Your task to perform on an android device: Add "usb-c to usb-a" to the cart on amazon, then select checkout. Image 0: 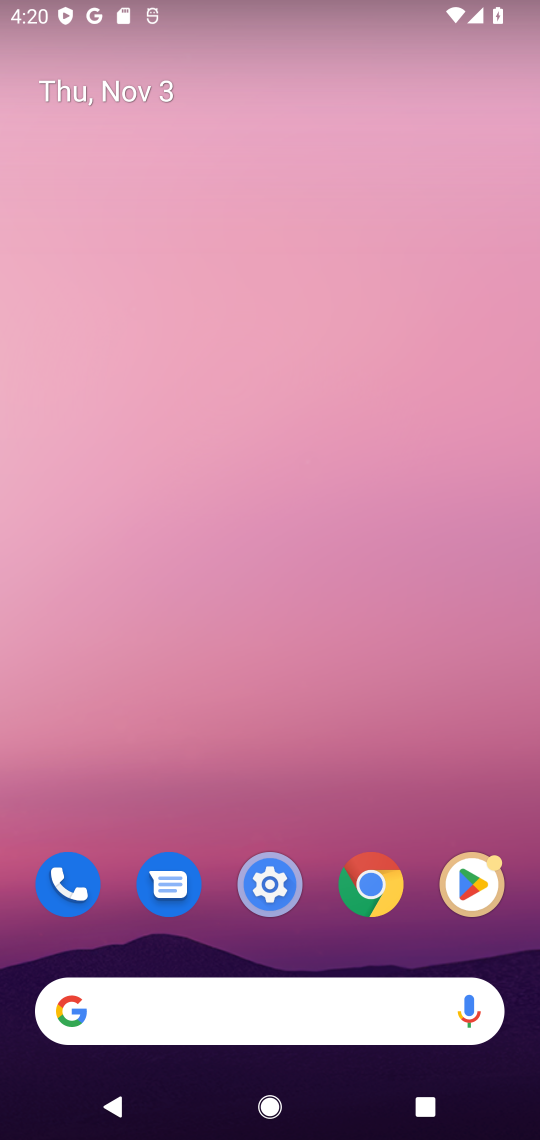
Step 0: press home button
Your task to perform on an android device: Add "usb-c to usb-a" to the cart on amazon, then select checkout. Image 1: 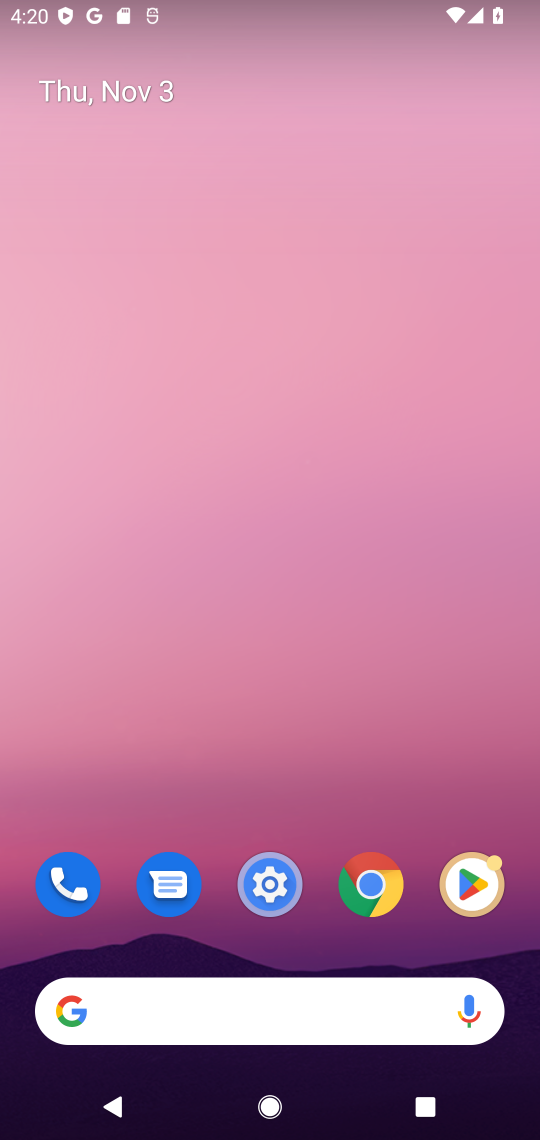
Step 1: click (105, 1007)
Your task to perform on an android device: Add "usb-c to usb-a" to the cart on amazon, then select checkout. Image 2: 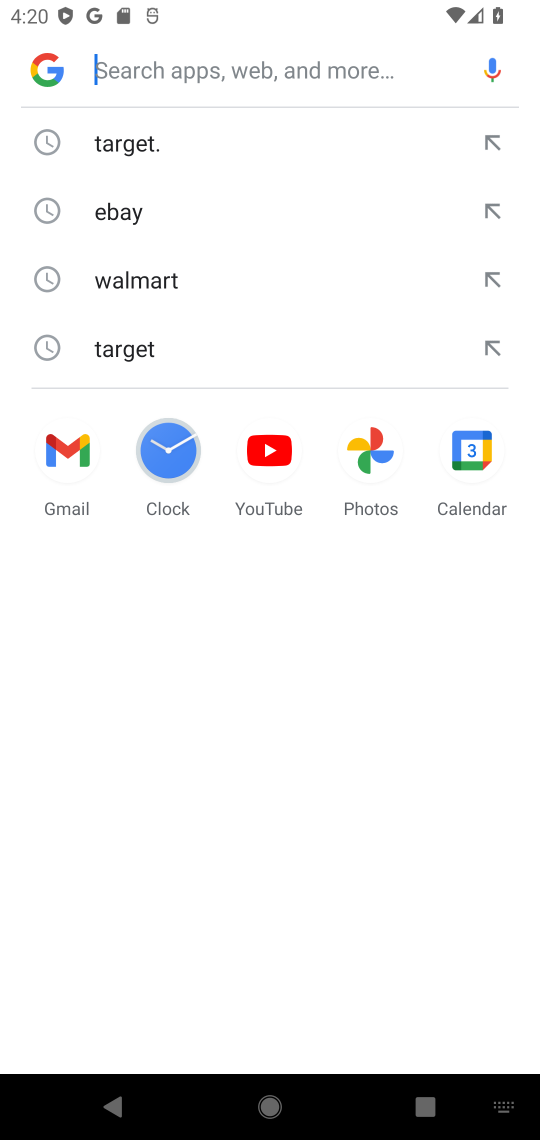
Step 2: type "amazon"
Your task to perform on an android device: Add "usb-c to usb-a" to the cart on amazon, then select checkout. Image 3: 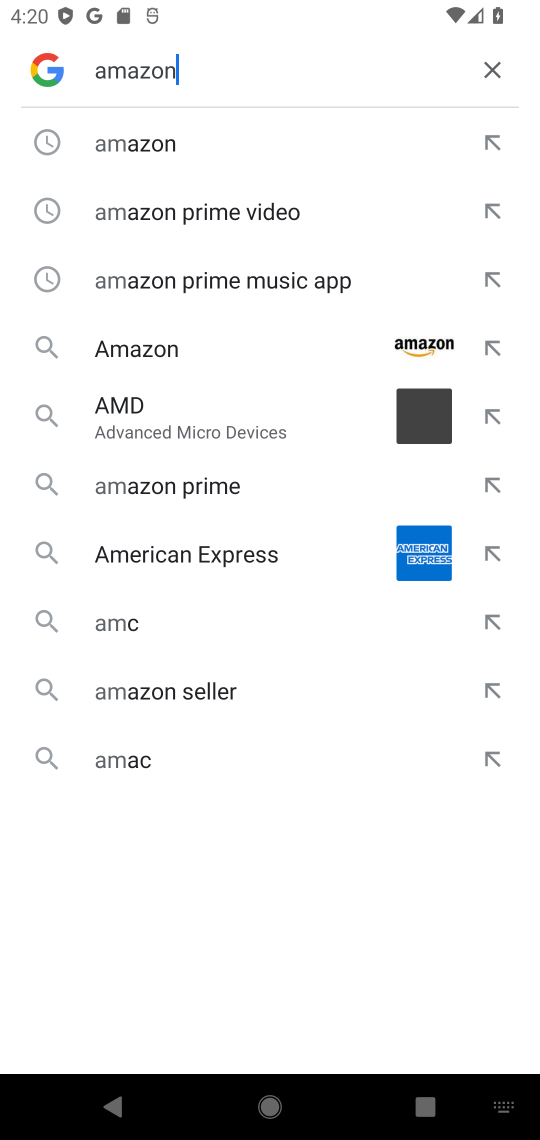
Step 3: press enter
Your task to perform on an android device: Add "usb-c to usb-a" to the cart on amazon, then select checkout. Image 4: 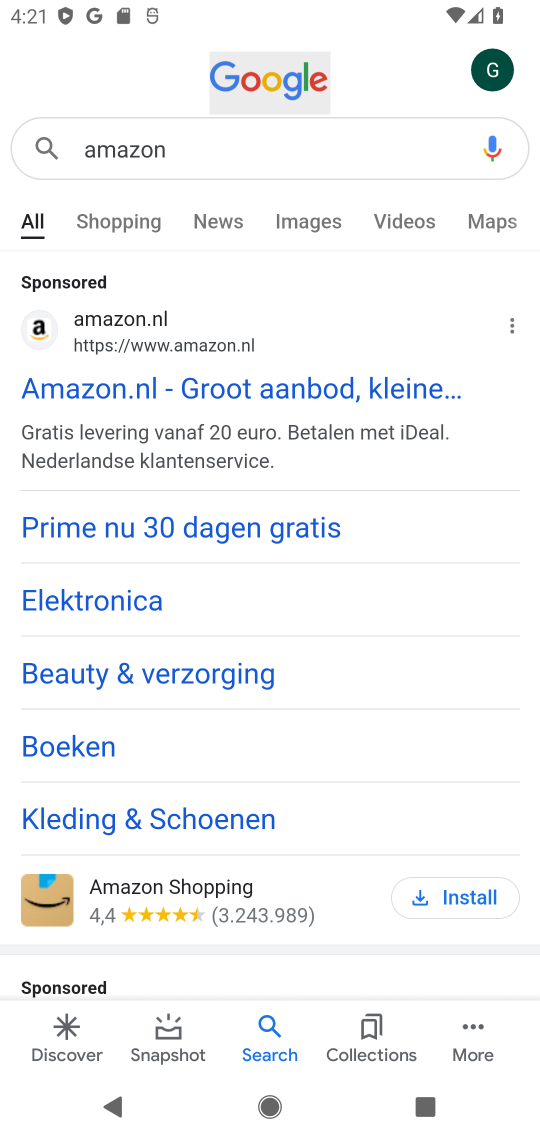
Step 4: drag from (335, 803) to (368, 331)
Your task to perform on an android device: Add "usb-c to usb-a" to the cart on amazon, then select checkout. Image 5: 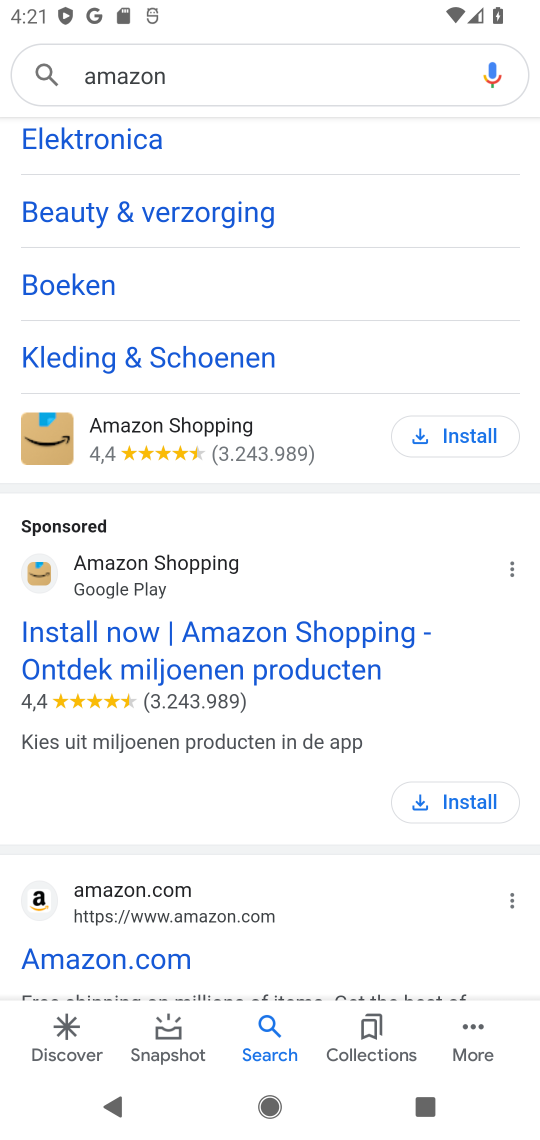
Step 5: drag from (314, 857) to (341, 395)
Your task to perform on an android device: Add "usb-c to usb-a" to the cart on amazon, then select checkout. Image 6: 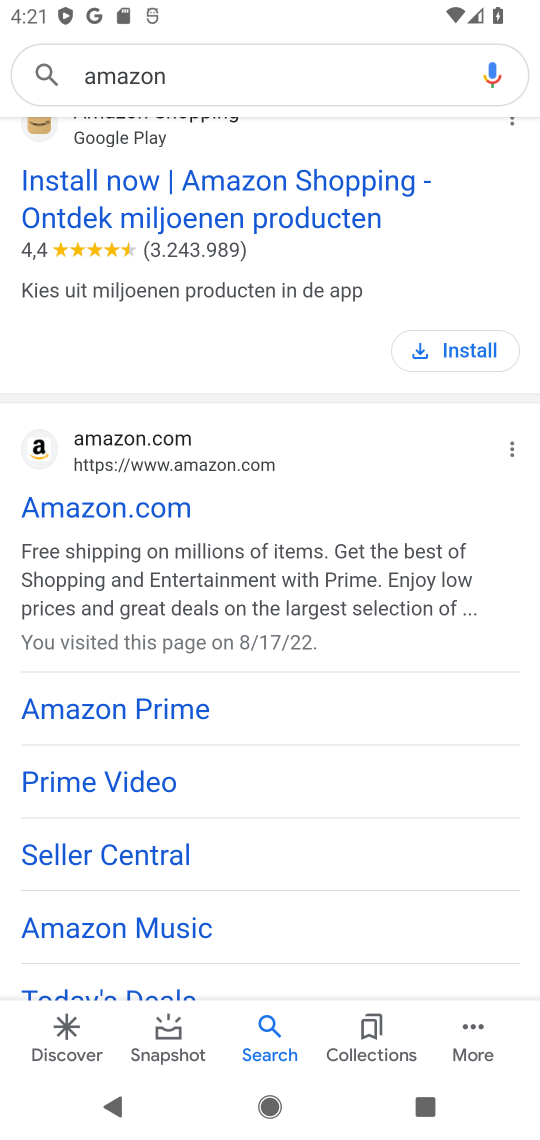
Step 6: click (115, 504)
Your task to perform on an android device: Add "usb-c to usb-a" to the cart on amazon, then select checkout. Image 7: 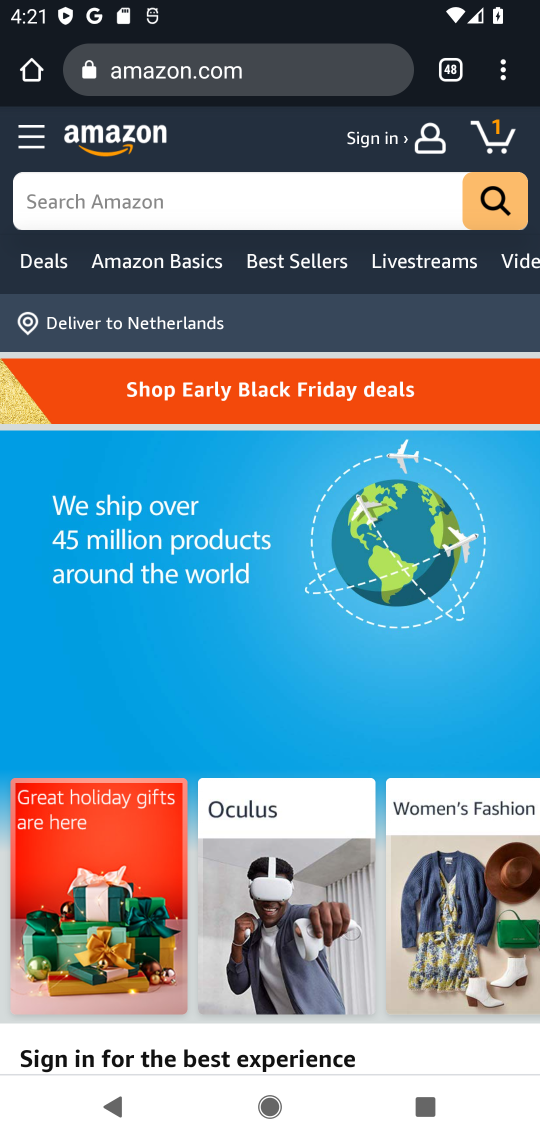
Step 7: click (64, 201)
Your task to perform on an android device: Add "usb-c to usb-a" to the cart on amazon, then select checkout. Image 8: 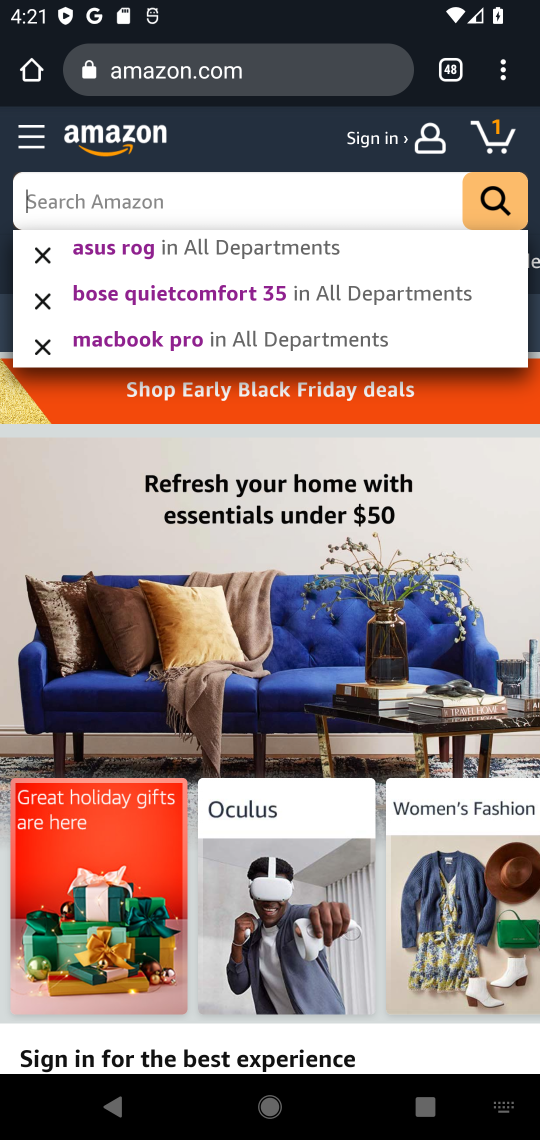
Step 8: type "usb-c to usb-a"
Your task to perform on an android device: Add "usb-c to usb-a" to the cart on amazon, then select checkout. Image 9: 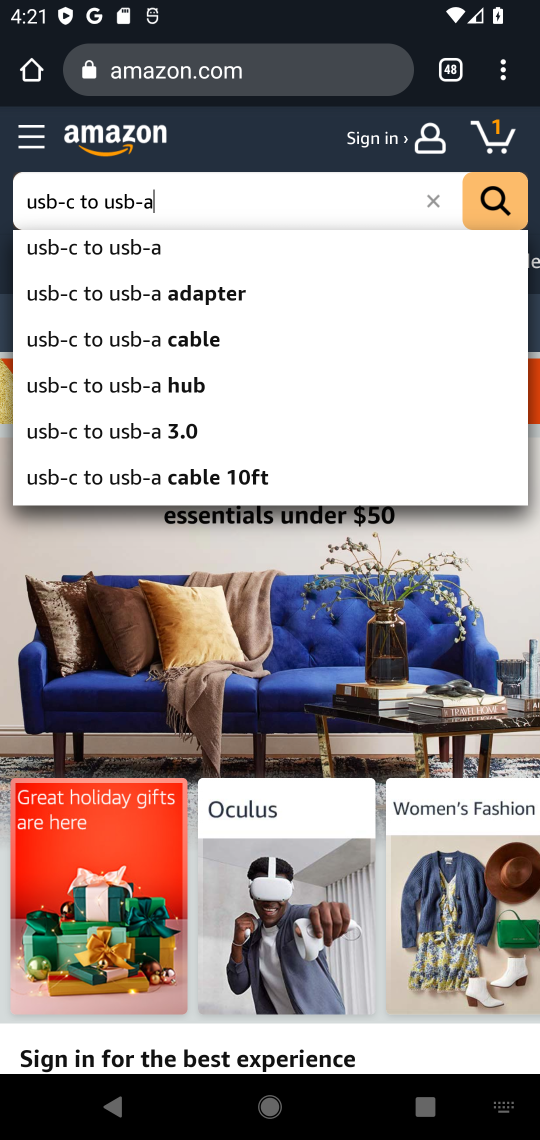
Step 9: click (491, 199)
Your task to perform on an android device: Add "usb-c to usb-a" to the cart on amazon, then select checkout. Image 10: 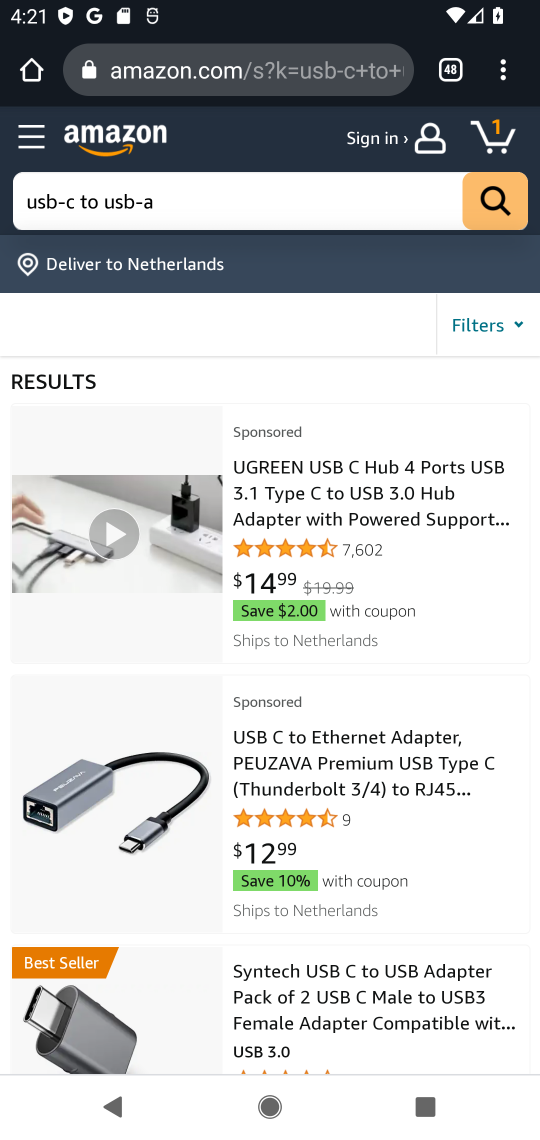
Step 10: drag from (391, 882) to (401, 710)
Your task to perform on an android device: Add "usb-c to usb-a" to the cart on amazon, then select checkout. Image 11: 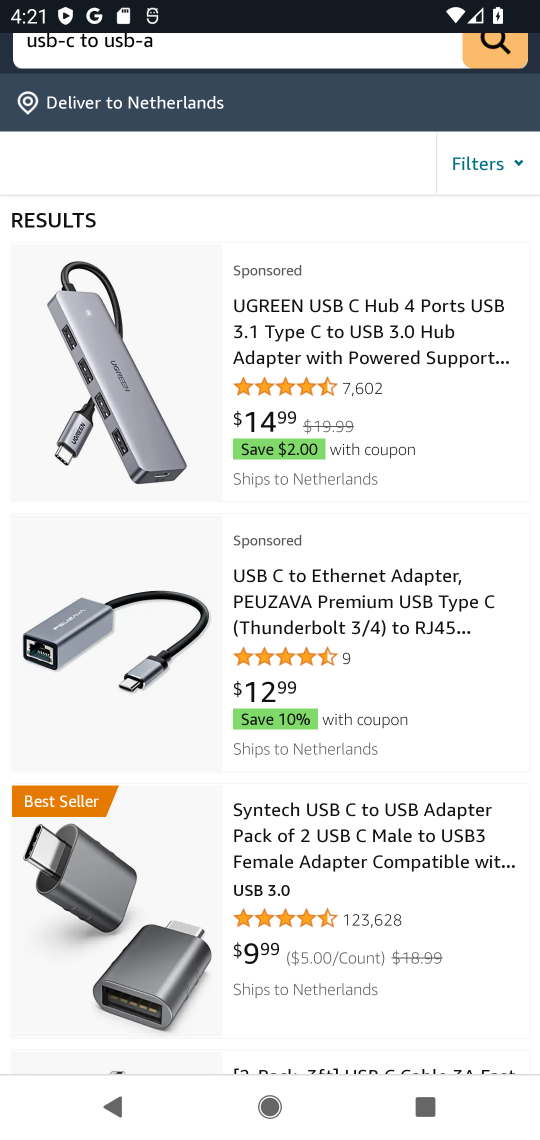
Step 11: drag from (404, 803) to (408, 599)
Your task to perform on an android device: Add "usb-c to usb-a" to the cart on amazon, then select checkout. Image 12: 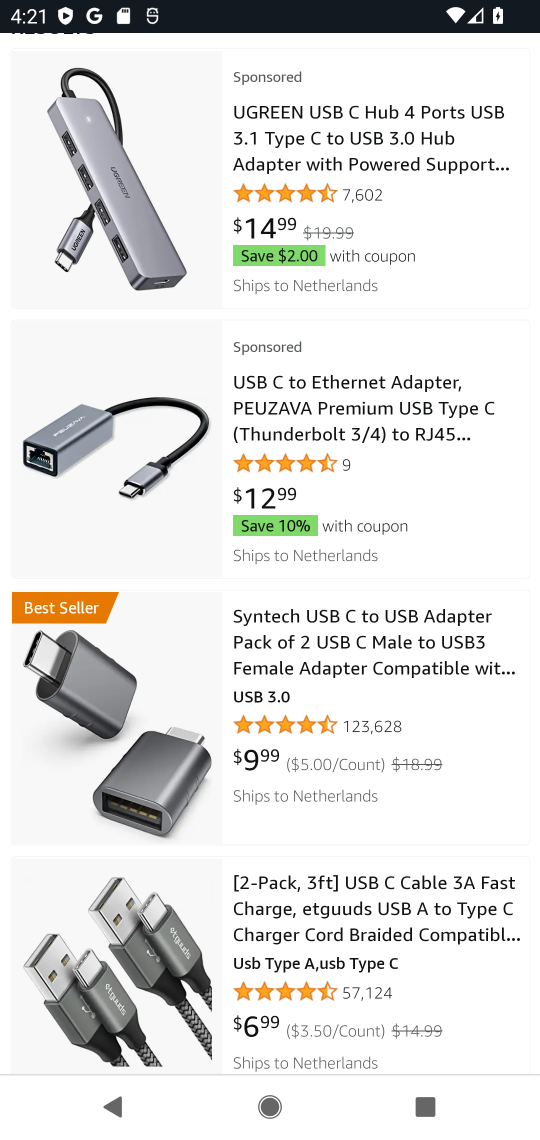
Step 12: drag from (413, 803) to (425, 619)
Your task to perform on an android device: Add "usb-c to usb-a" to the cart on amazon, then select checkout. Image 13: 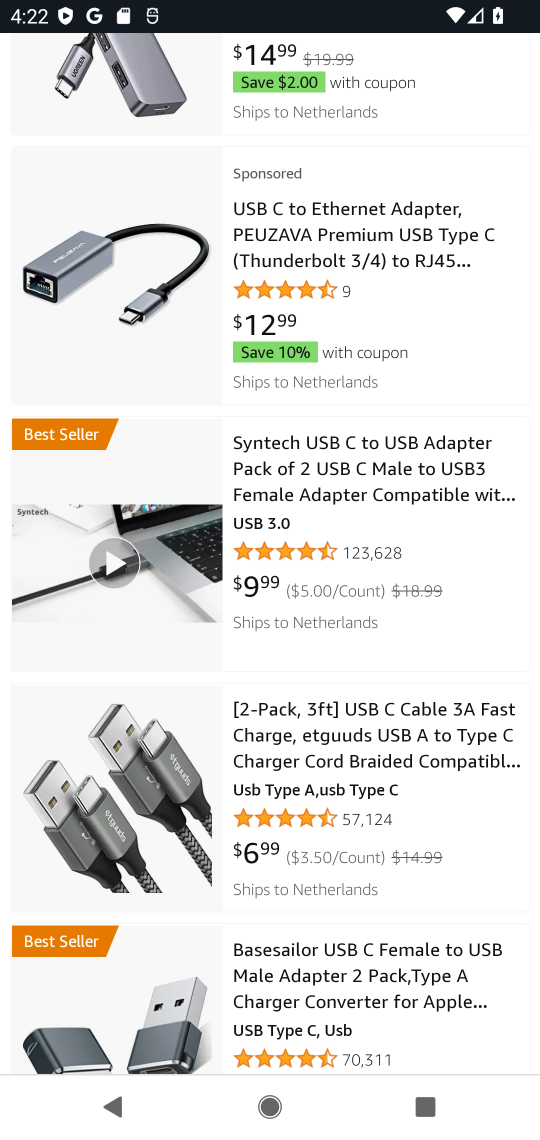
Step 13: drag from (383, 857) to (388, 692)
Your task to perform on an android device: Add "usb-c to usb-a" to the cart on amazon, then select checkout. Image 14: 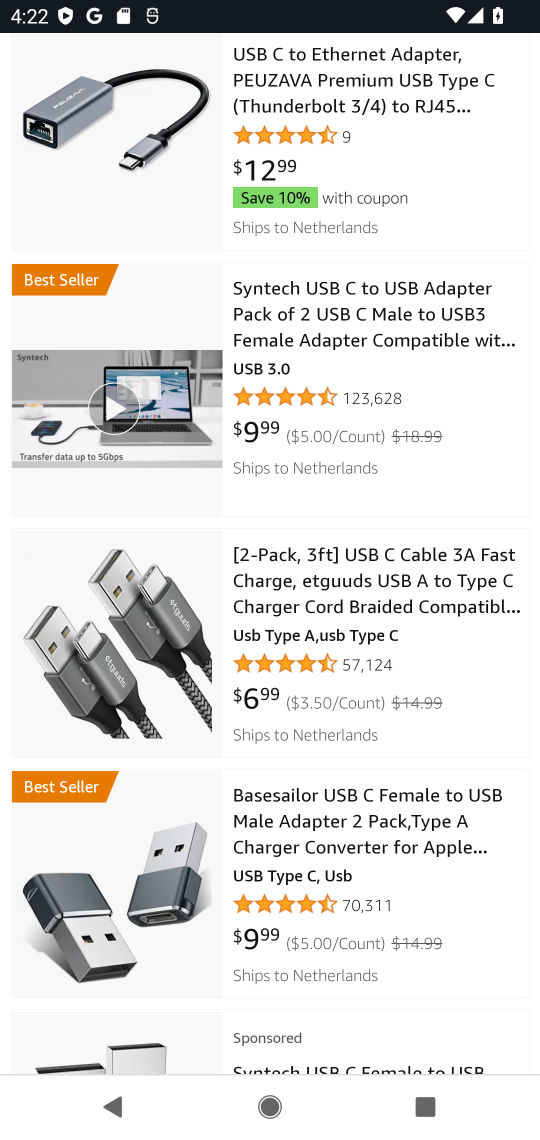
Step 14: click (377, 576)
Your task to perform on an android device: Add "usb-c to usb-a" to the cart on amazon, then select checkout. Image 15: 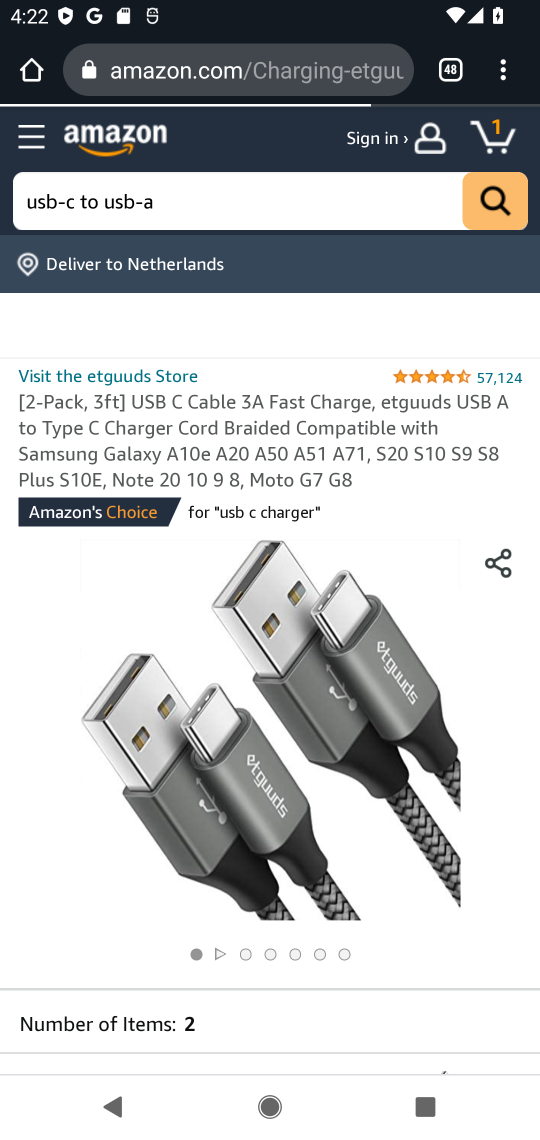
Step 15: drag from (311, 838) to (315, 388)
Your task to perform on an android device: Add "usb-c to usb-a" to the cart on amazon, then select checkout. Image 16: 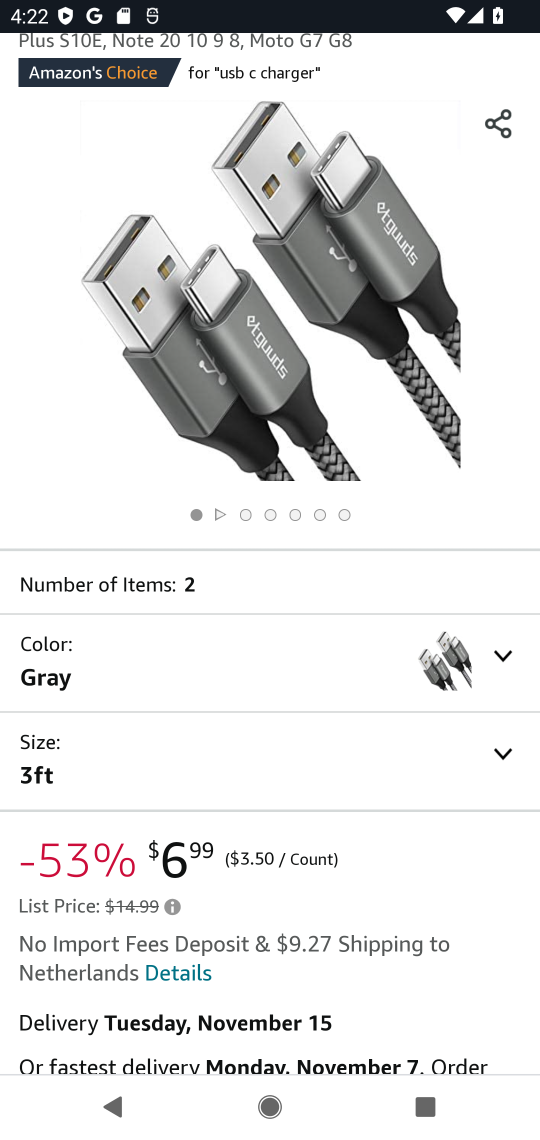
Step 16: drag from (306, 939) to (367, 382)
Your task to perform on an android device: Add "usb-c to usb-a" to the cart on amazon, then select checkout. Image 17: 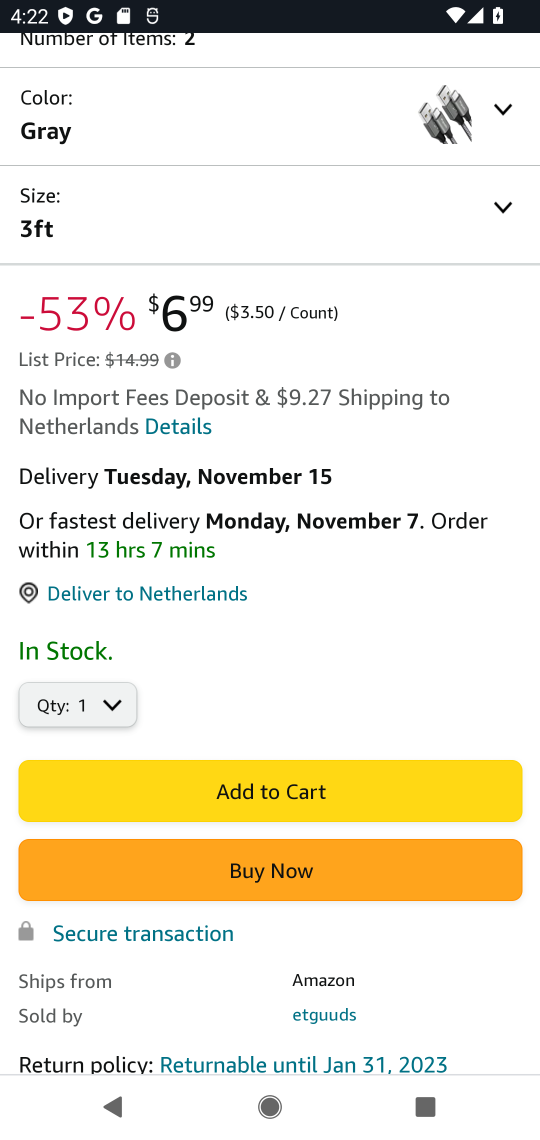
Step 17: click (368, 805)
Your task to perform on an android device: Add "usb-c to usb-a" to the cart on amazon, then select checkout. Image 18: 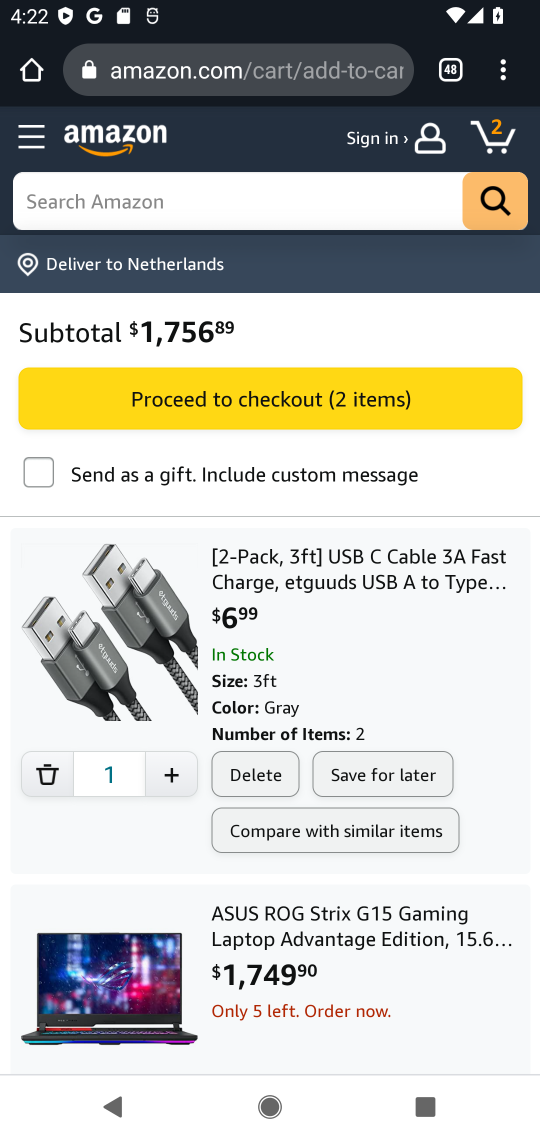
Step 18: click (264, 395)
Your task to perform on an android device: Add "usb-c to usb-a" to the cart on amazon, then select checkout. Image 19: 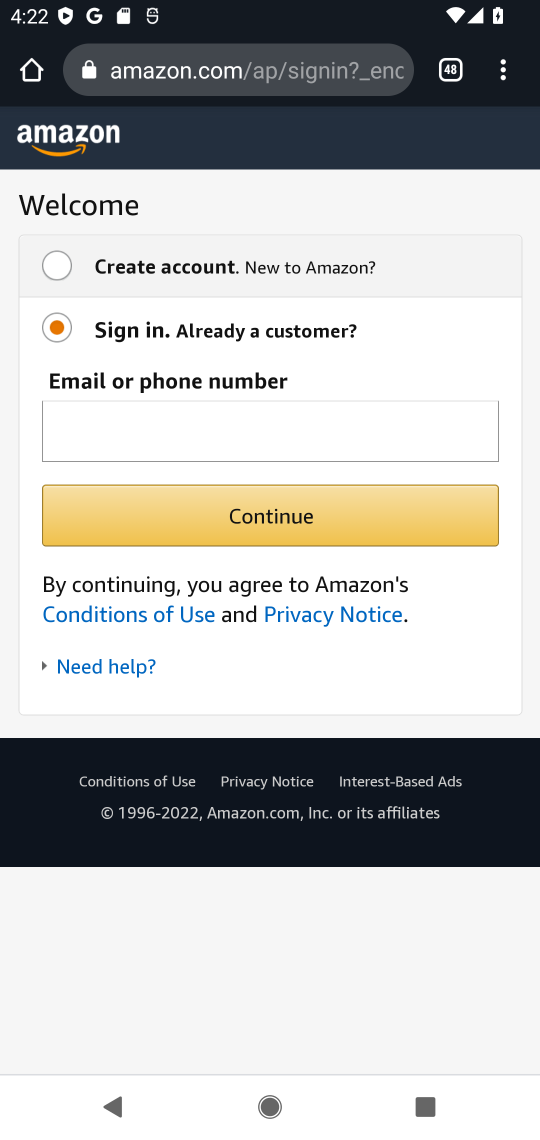
Step 19: task complete